Your task to perform on an android device: toggle show notifications on the lock screen Image 0: 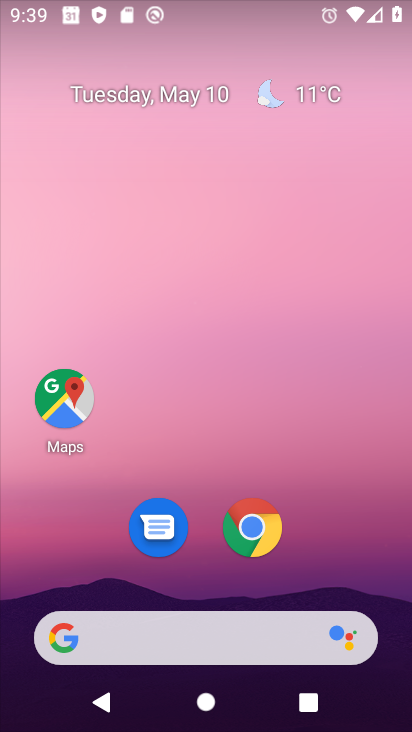
Step 0: click (350, 465)
Your task to perform on an android device: toggle show notifications on the lock screen Image 1: 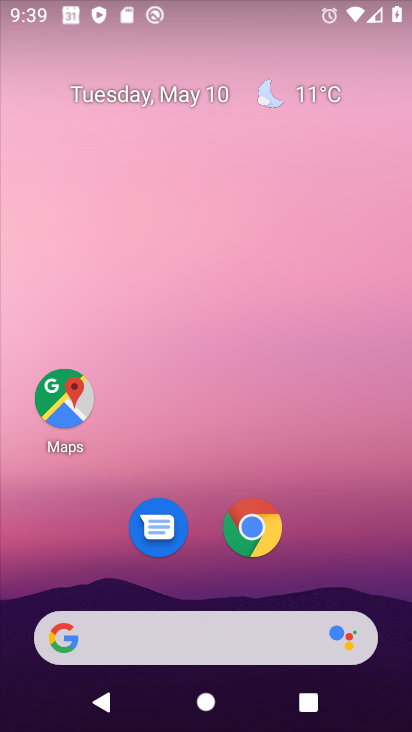
Step 1: drag from (347, 509) to (322, 52)
Your task to perform on an android device: toggle show notifications on the lock screen Image 2: 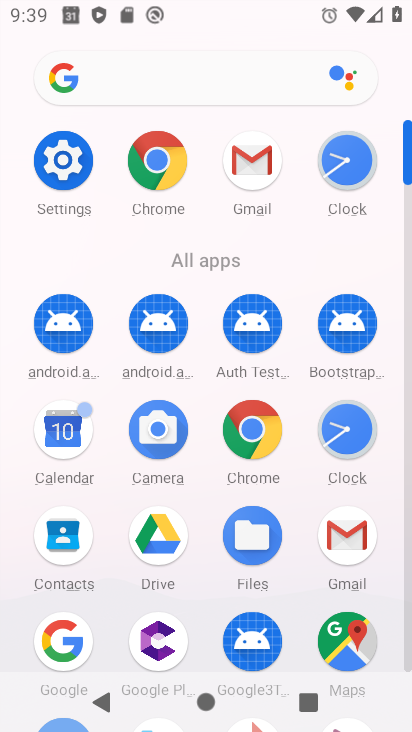
Step 2: click (73, 176)
Your task to perform on an android device: toggle show notifications on the lock screen Image 3: 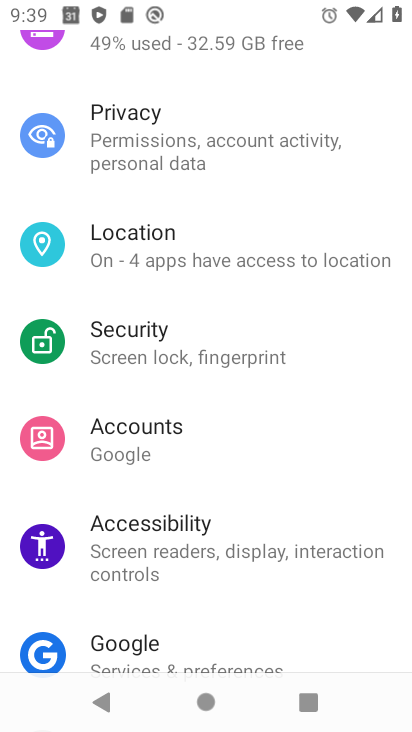
Step 3: drag from (344, 131) to (312, 543)
Your task to perform on an android device: toggle show notifications on the lock screen Image 4: 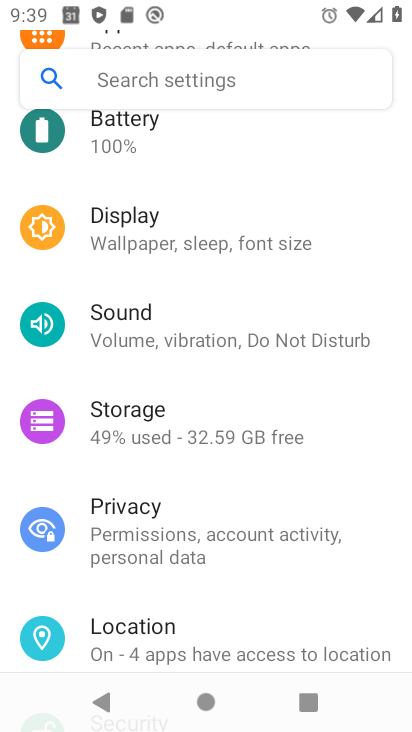
Step 4: drag from (252, 201) to (292, 423)
Your task to perform on an android device: toggle show notifications on the lock screen Image 5: 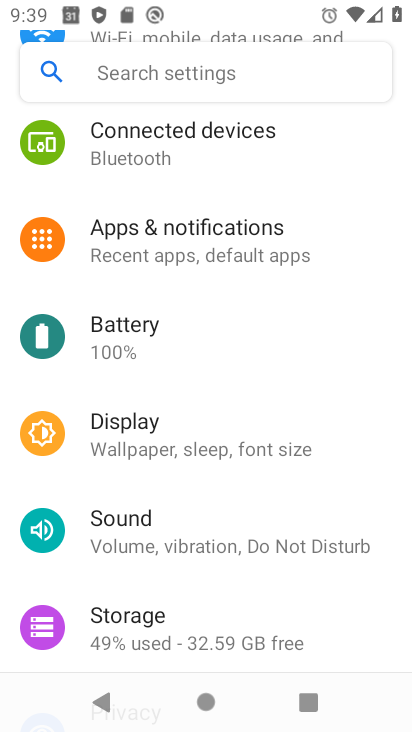
Step 5: drag from (252, 291) to (299, 536)
Your task to perform on an android device: toggle show notifications on the lock screen Image 6: 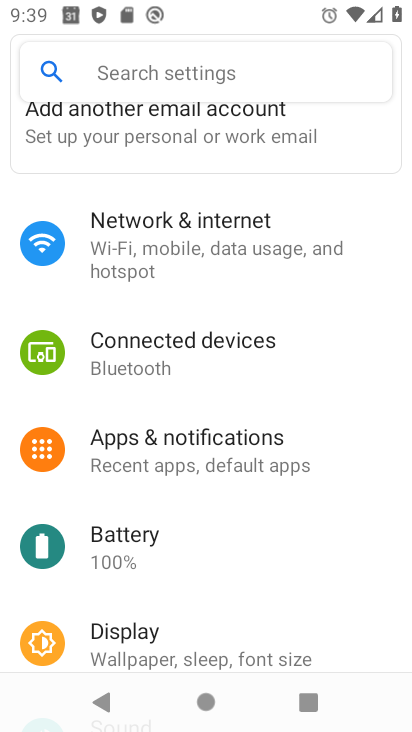
Step 6: click (178, 445)
Your task to perform on an android device: toggle show notifications on the lock screen Image 7: 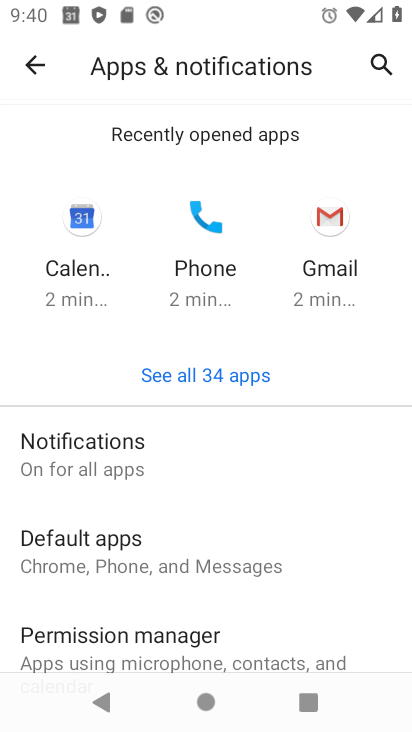
Step 7: click (178, 445)
Your task to perform on an android device: toggle show notifications on the lock screen Image 8: 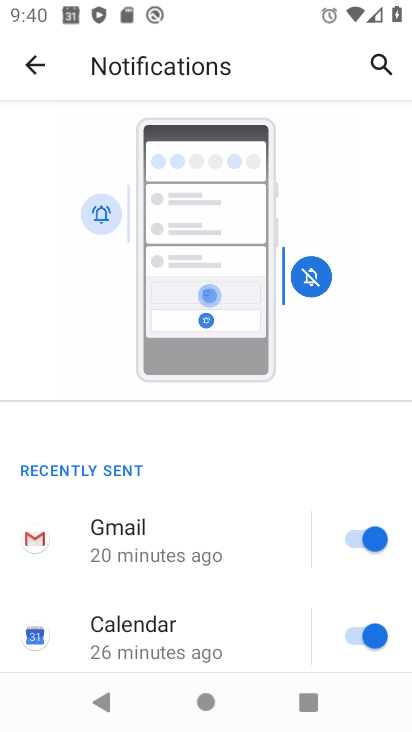
Step 8: drag from (256, 553) to (215, 156)
Your task to perform on an android device: toggle show notifications on the lock screen Image 9: 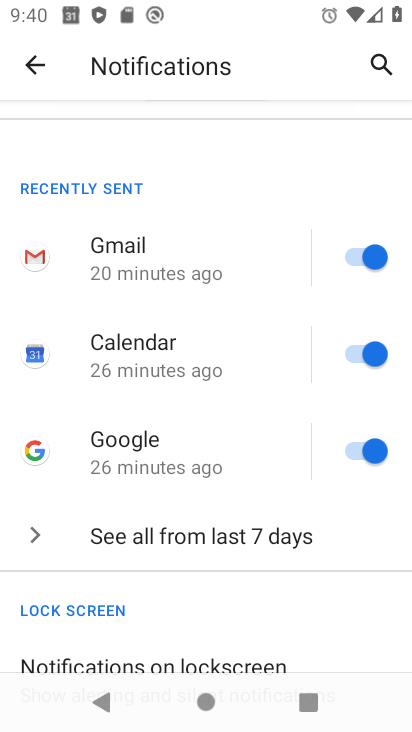
Step 9: click (237, 649)
Your task to perform on an android device: toggle show notifications on the lock screen Image 10: 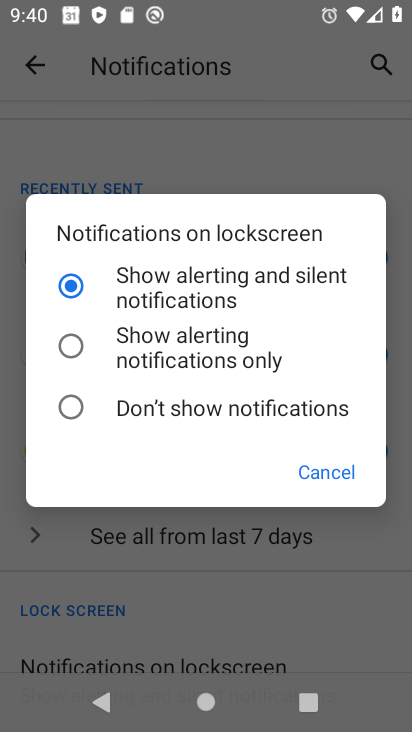
Step 10: click (136, 412)
Your task to perform on an android device: toggle show notifications on the lock screen Image 11: 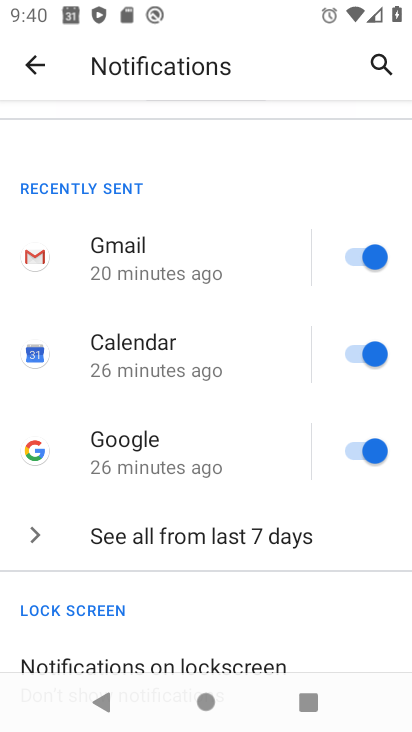
Step 11: task complete